Your task to perform on an android device: open device folders in google photos Image 0: 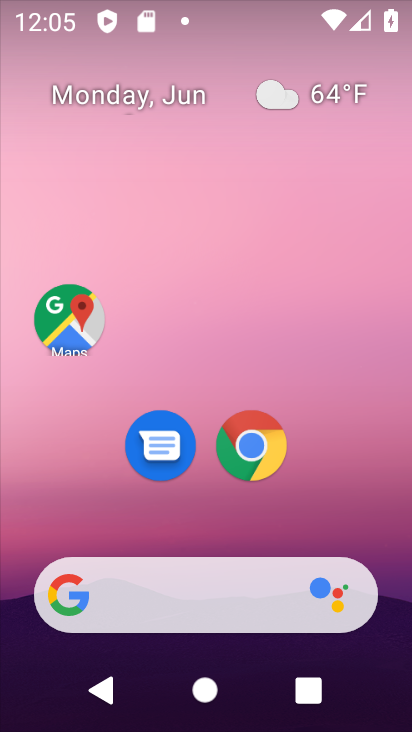
Step 0: drag from (296, 630) to (334, 31)
Your task to perform on an android device: open device folders in google photos Image 1: 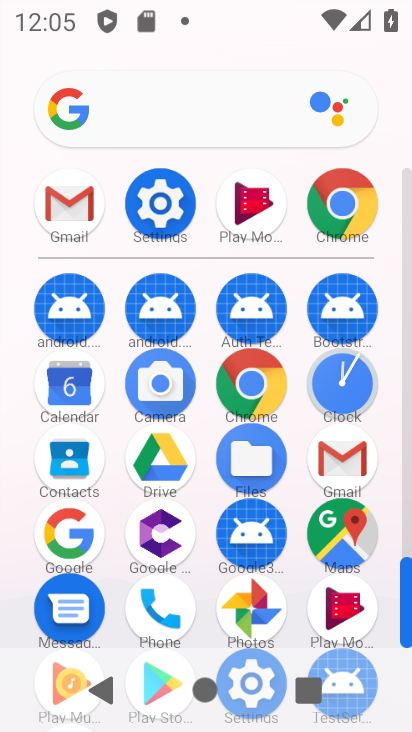
Step 1: click (257, 602)
Your task to perform on an android device: open device folders in google photos Image 2: 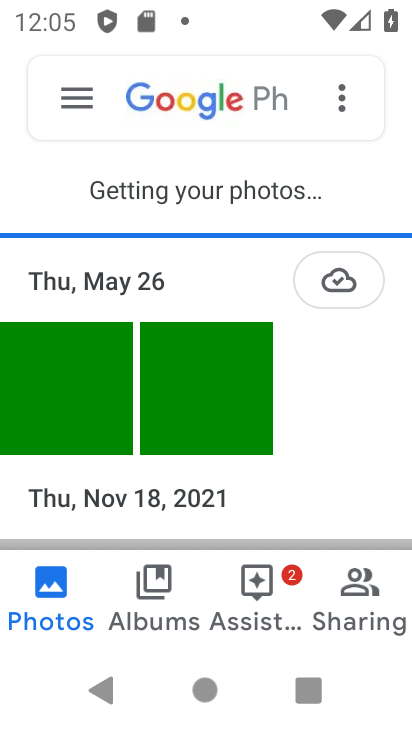
Step 2: click (75, 102)
Your task to perform on an android device: open device folders in google photos Image 3: 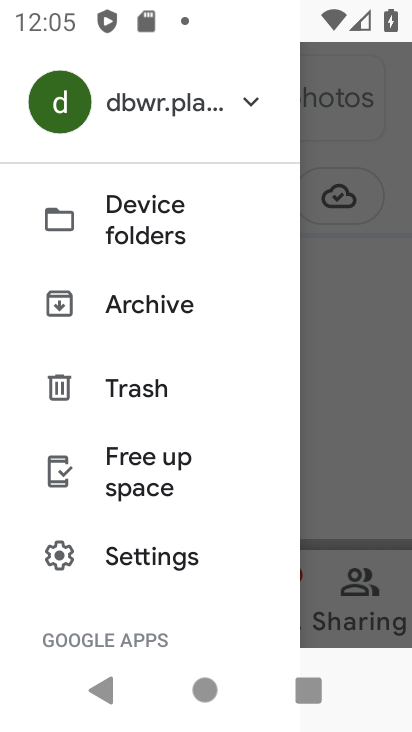
Step 3: click (147, 217)
Your task to perform on an android device: open device folders in google photos Image 4: 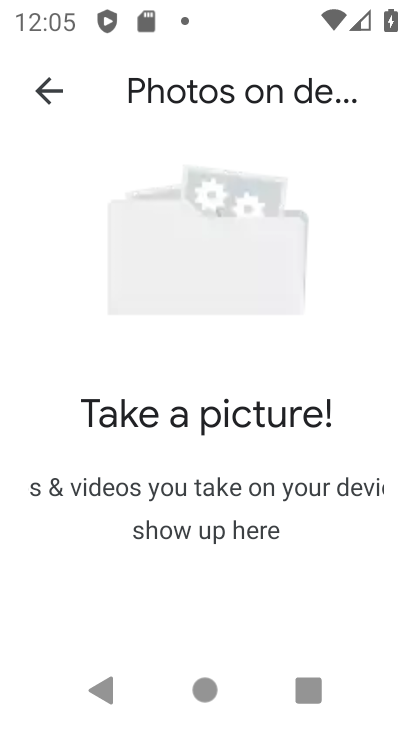
Step 4: task complete